Your task to perform on an android device: snooze an email in the gmail app Image 0: 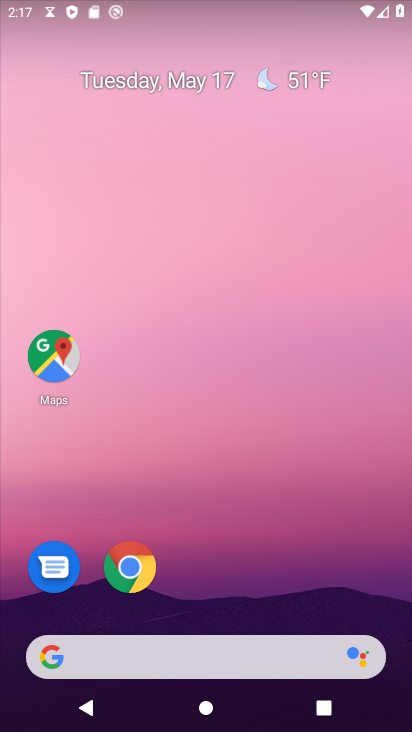
Step 0: drag from (197, 666) to (154, 225)
Your task to perform on an android device: snooze an email in the gmail app Image 1: 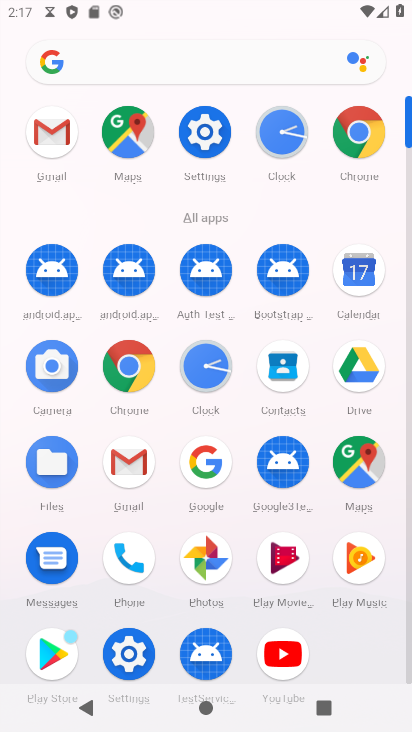
Step 1: click (122, 468)
Your task to perform on an android device: snooze an email in the gmail app Image 2: 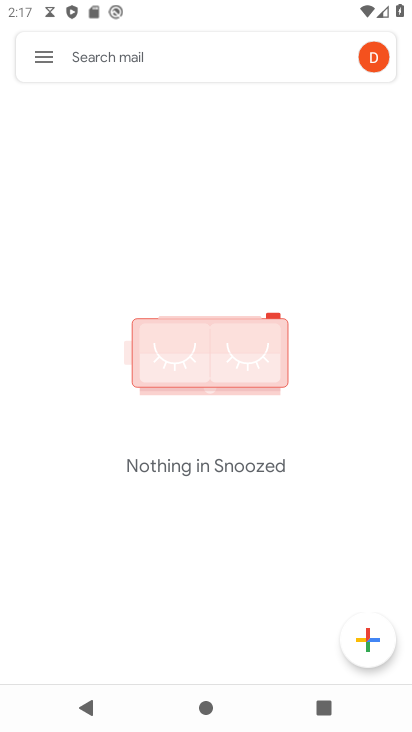
Step 2: click (33, 52)
Your task to perform on an android device: snooze an email in the gmail app Image 3: 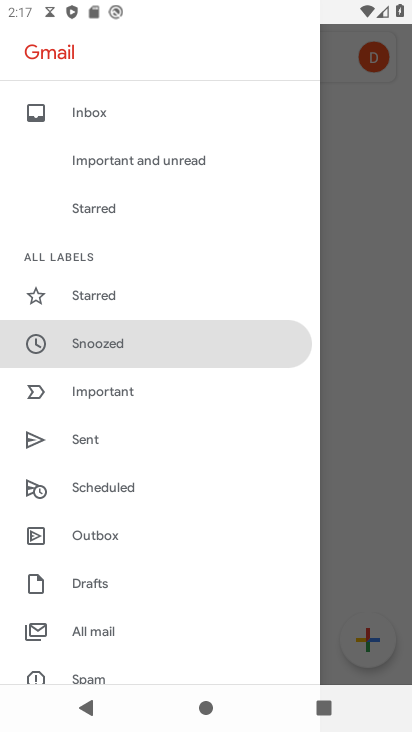
Step 3: click (97, 621)
Your task to perform on an android device: snooze an email in the gmail app Image 4: 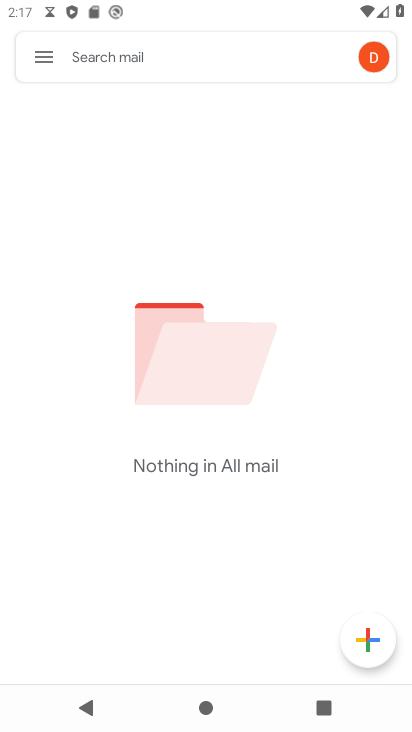
Step 4: task complete